Your task to perform on an android device: turn off priority inbox in the gmail app Image 0: 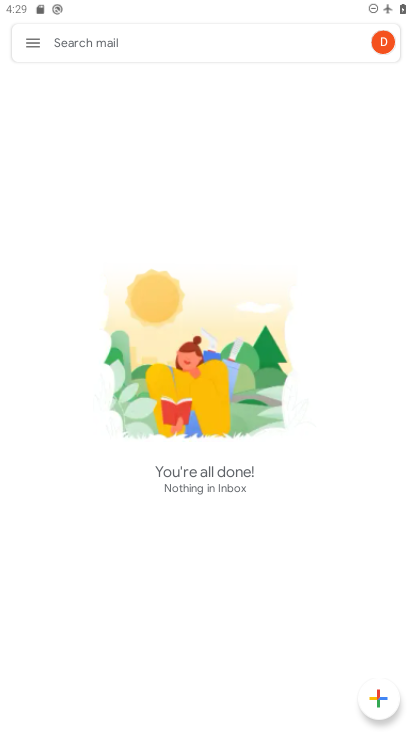
Step 0: click (36, 30)
Your task to perform on an android device: turn off priority inbox in the gmail app Image 1: 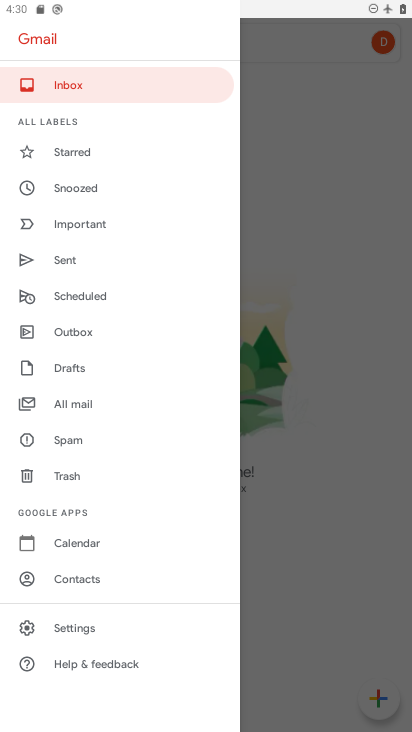
Step 1: click (71, 622)
Your task to perform on an android device: turn off priority inbox in the gmail app Image 2: 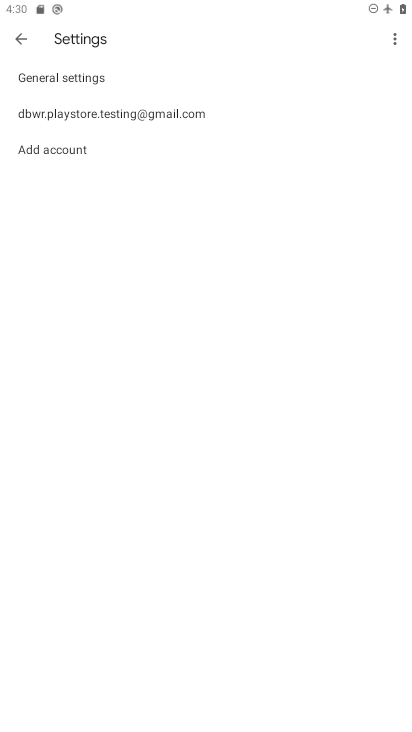
Step 2: click (82, 121)
Your task to perform on an android device: turn off priority inbox in the gmail app Image 3: 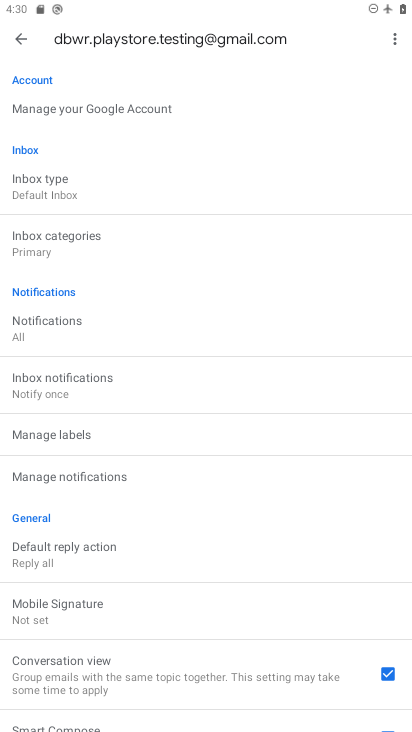
Step 3: drag from (225, 530) to (203, 38)
Your task to perform on an android device: turn off priority inbox in the gmail app Image 4: 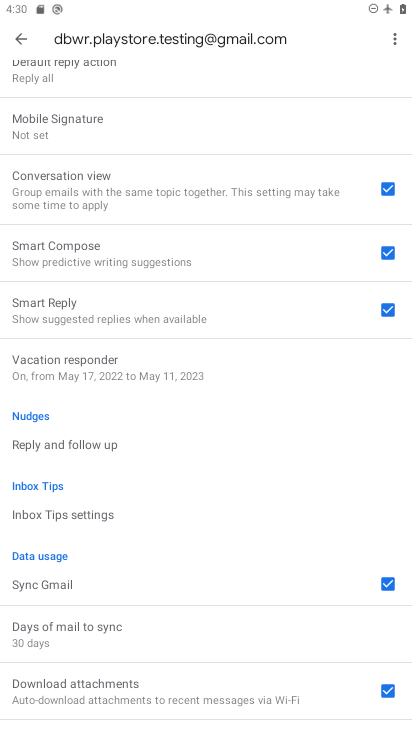
Step 4: drag from (156, 636) to (150, 173)
Your task to perform on an android device: turn off priority inbox in the gmail app Image 5: 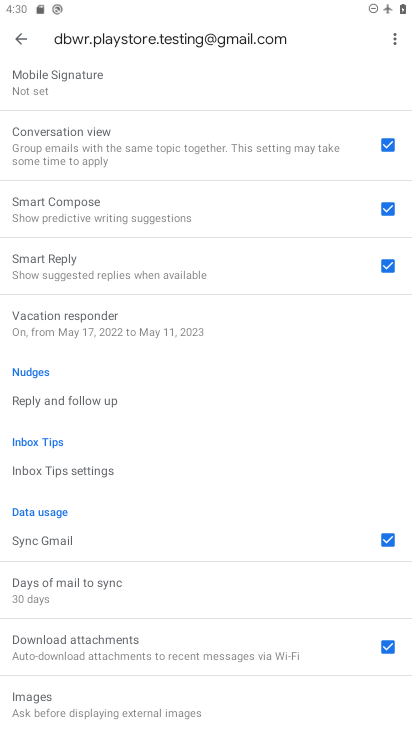
Step 5: drag from (231, 142) to (245, 571)
Your task to perform on an android device: turn off priority inbox in the gmail app Image 6: 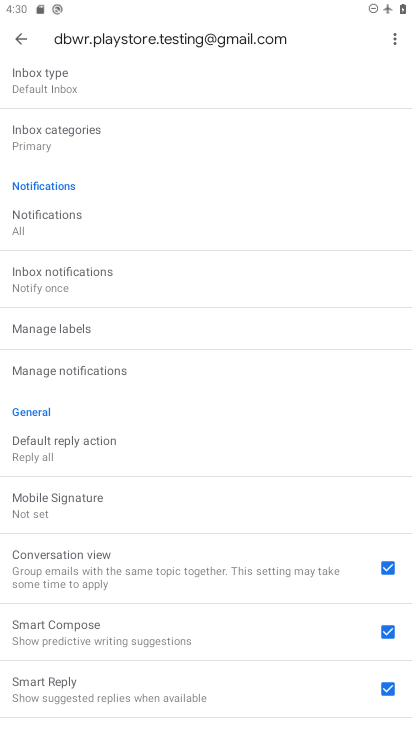
Step 6: click (103, 134)
Your task to perform on an android device: turn off priority inbox in the gmail app Image 7: 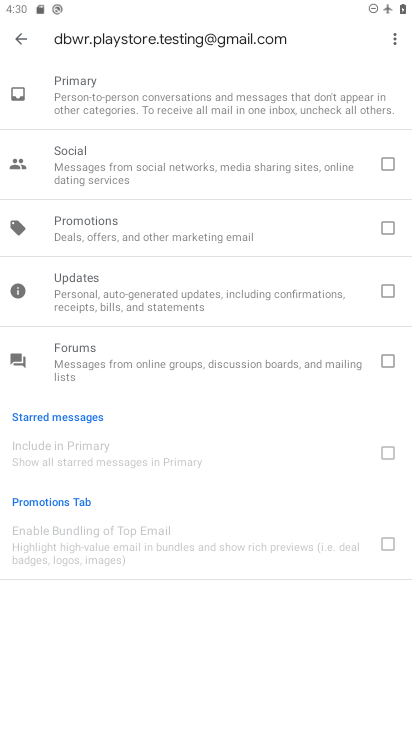
Step 7: click (26, 49)
Your task to perform on an android device: turn off priority inbox in the gmail app Image 8: 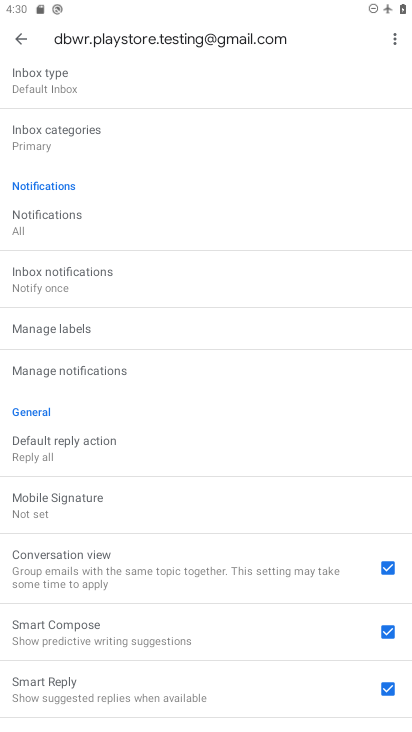
Step 8: click (68, 87)
Your task to perform on an android device: turn off priority inbox in the gmail app Image 9: 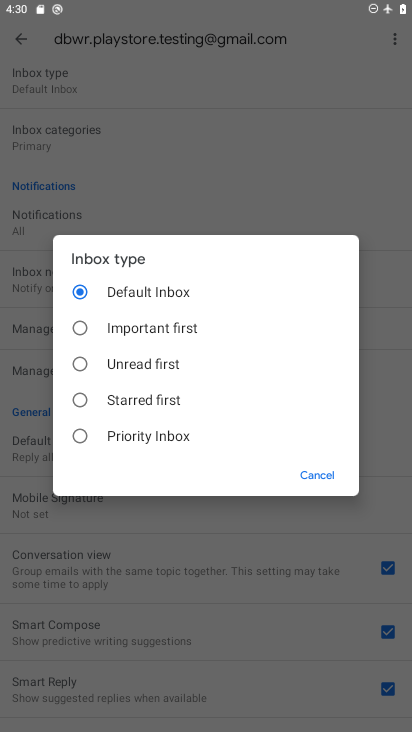
Step 9: click (116, 441)
Your task to perform on an android device: turn off priority inbox in the gmail app Image 10: 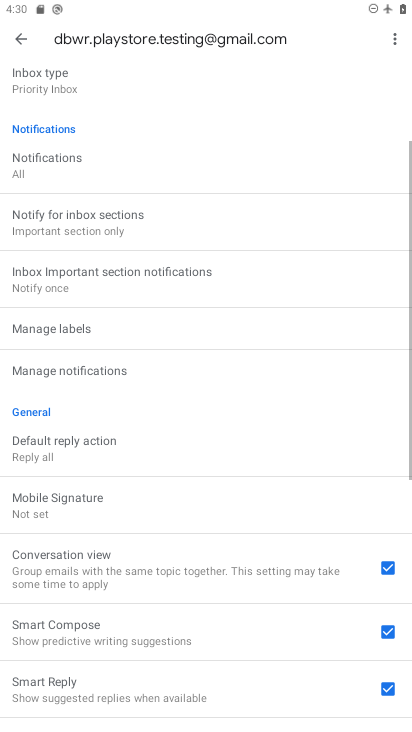
Step 10: click (58, 92)
Your task to perform on an android device: turn off priority inbox in the gmail app Image 11: 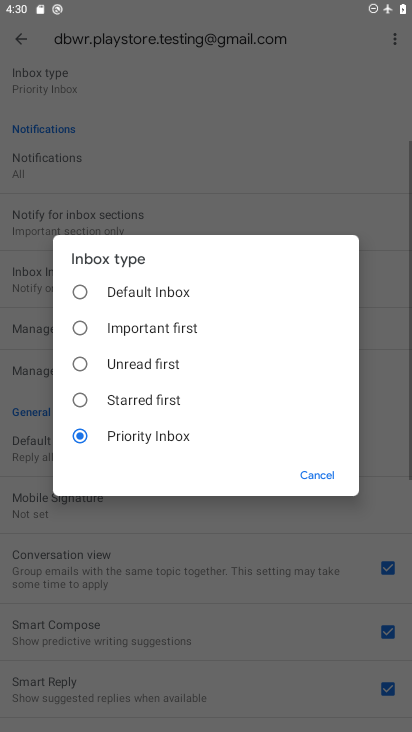
Step 11: click (123, 286)
Your task to perform on an android device: turn off priority inbox in the gmail app Image 12: 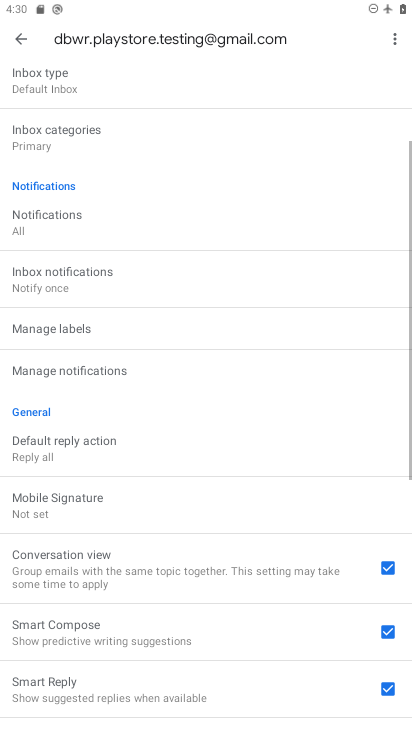
Step 12: task complete